Your task to perform on an android device: Go to Yahoo.com Image 0: 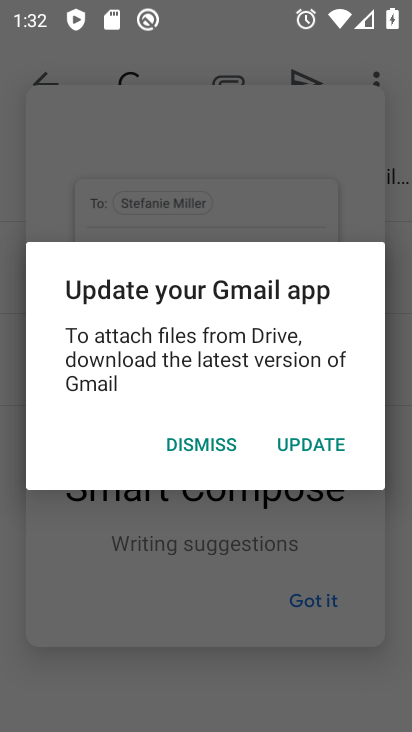
Step 0: press home button
Your task to perform on an android device: Go to Yahoo.com Image 1: 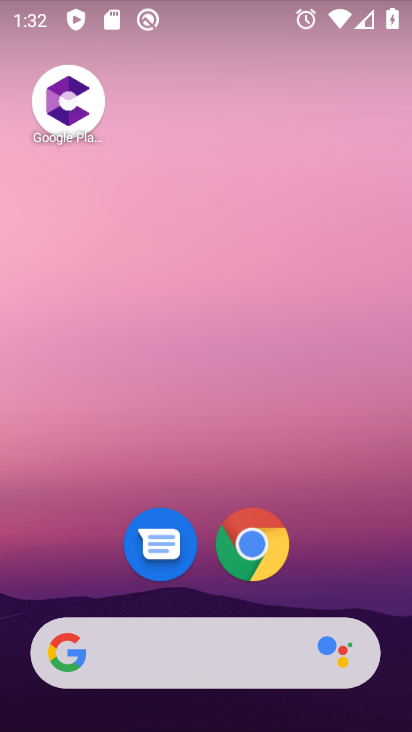
Step 1: click (249, 541)
Your task to perform on an android device: Go to Yahoo.com Image 2: 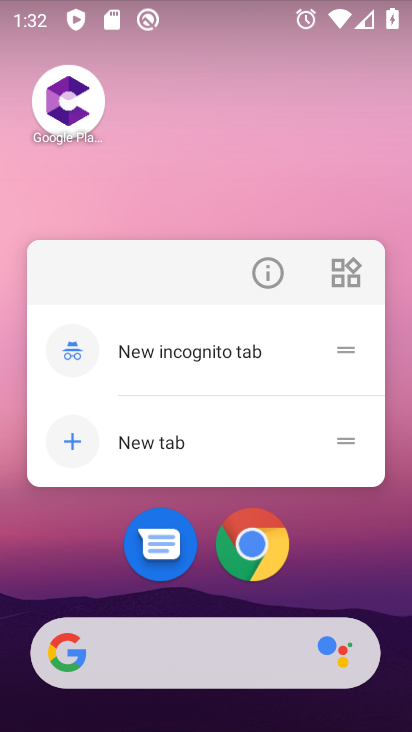
Step 2: click (249, 541)
Your task to perform on an android device: Go to Yahoo.com Image 3: 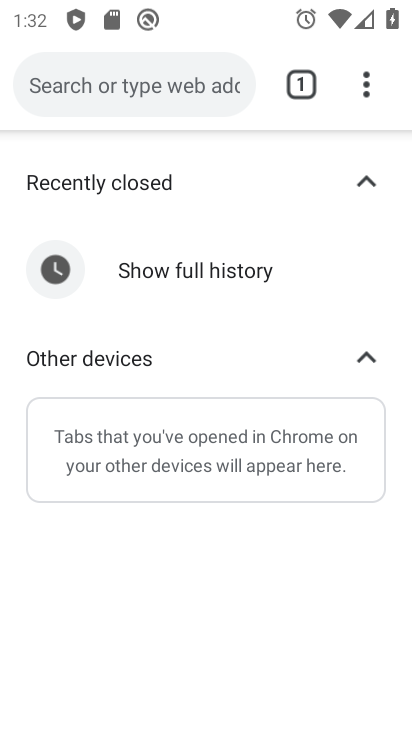
Step 3: click (127, 84)
Your task to perform on an android device: Go to Yahoo.com Image 4: 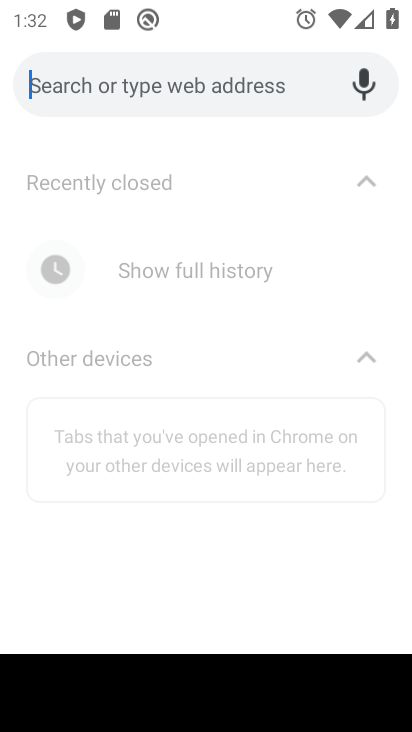
Step 4: type "Yahoo.com"
Your task to perform on an android device: Go to Yahoo.com Image 5: 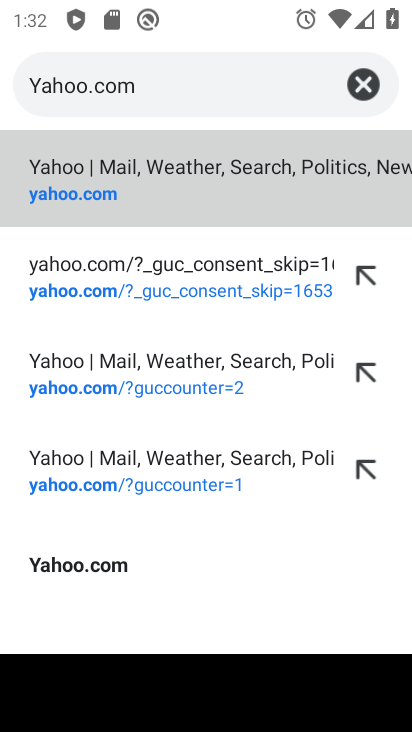
Step 5: click (99, 184)
Your task to perform on an android device: Go to Yahoo.com Image 6: 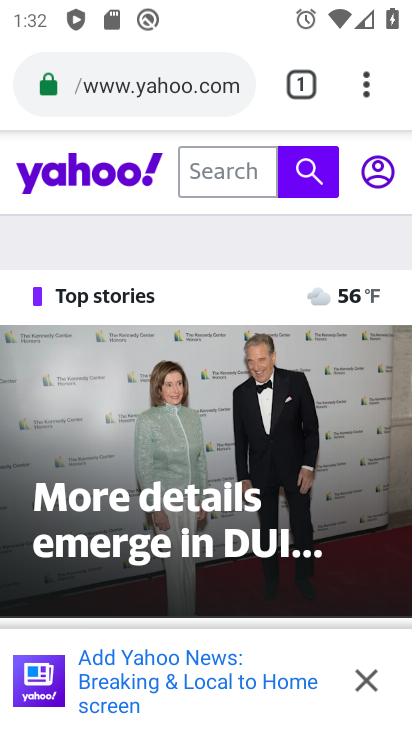
Step 6: task complete